Your task to perform on an android device: change your default location settings in chrome Image 0: 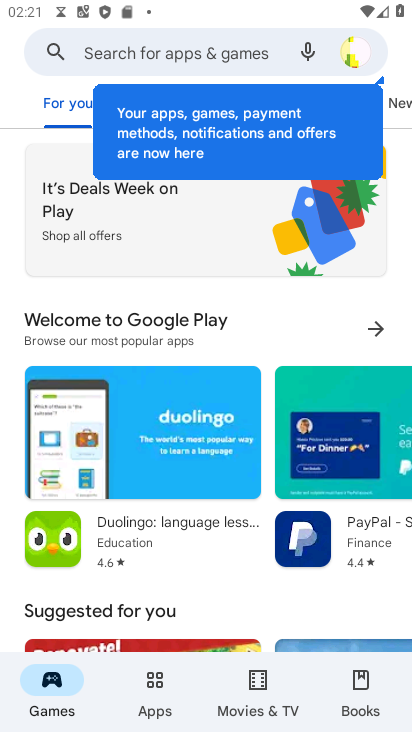
Step 0: press home button
Your task to perform on an android device: change your default location settings in chrome Image 1: 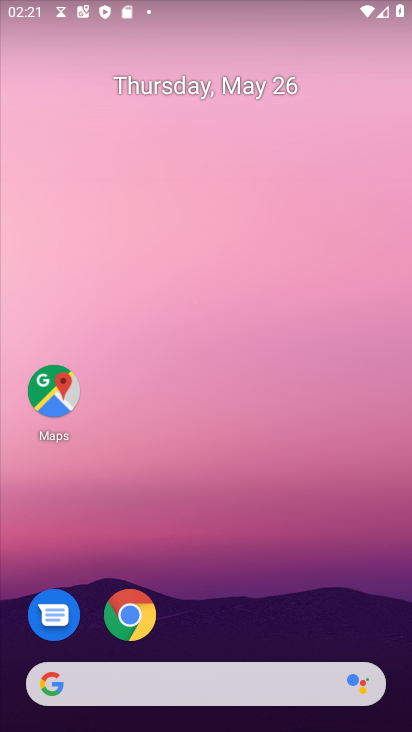
Step 1: click (127, 606)
Your task to perform on an android device: change your default location settings in chrome Image 2: 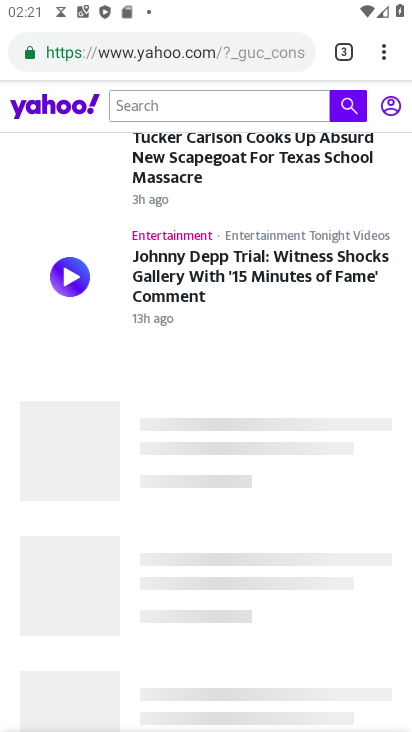
Step 2: click (388, 42)
Your task to perform on an android device: change your default location settings in chrome Image 3: 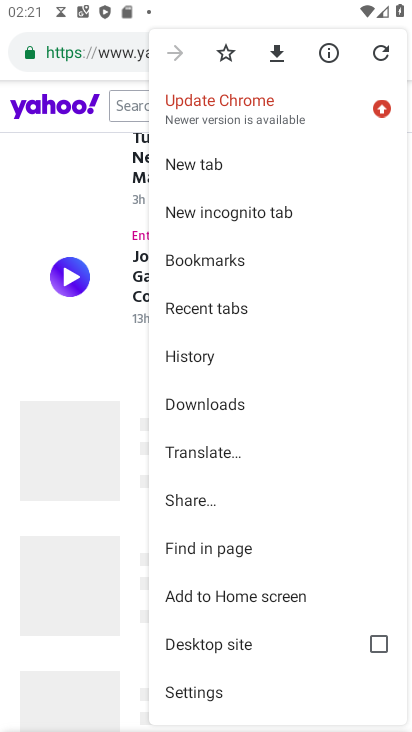
Step 3: click (231, 689)
Your task to perform on an android device: change your default location settings in chrome Image 4: 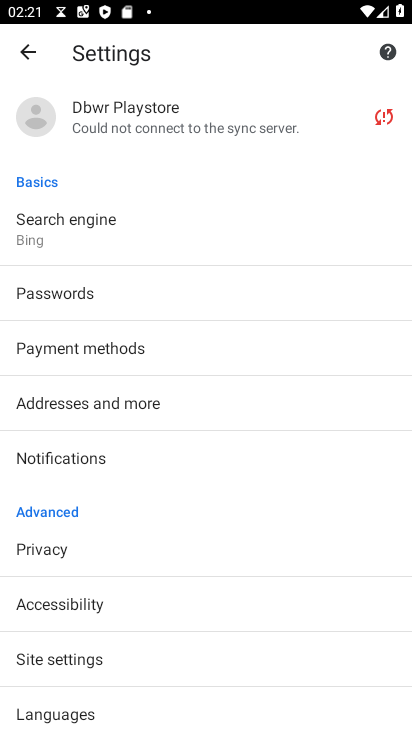
Step 4: click (111, 655)
Your task to perform on an android device: change your default location settings in chrome Image 5: 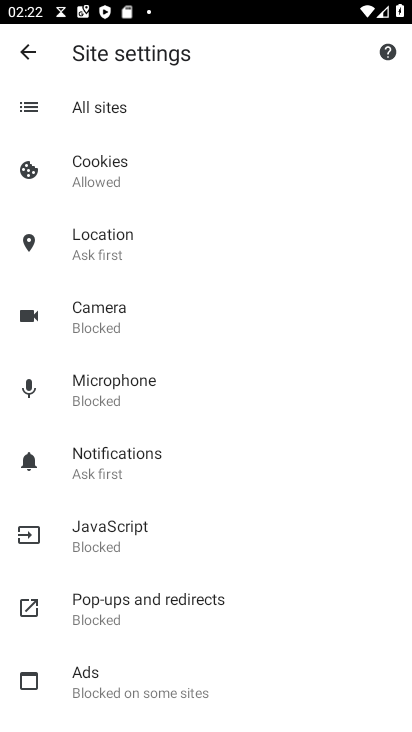
Step 5: click (138, 238)
Your task to perform on an android device: change your default location settings in chrome Image 6: 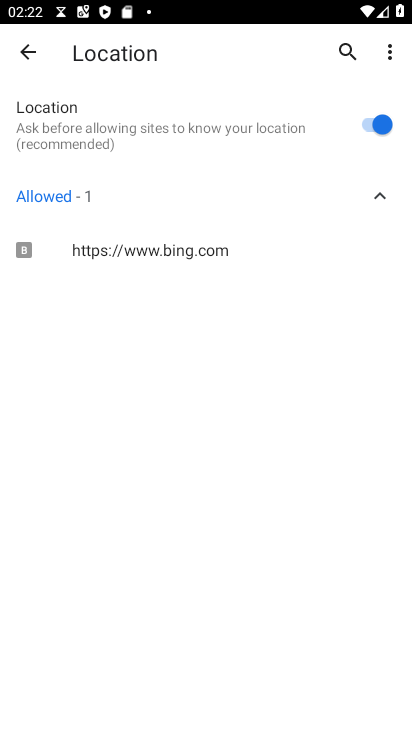
Step 6: click (376, 117)
Your task to perform on an android device: change your default location settings in chrome Image 7: 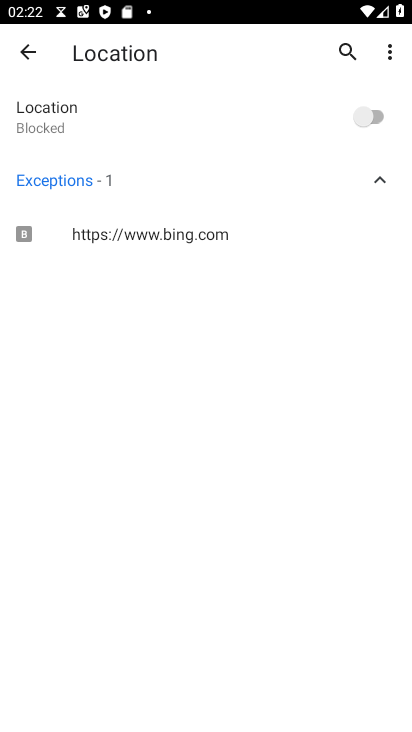
Step 7: task complete